Your task to perform on an android device: turn off improve location accuracy Image 0: 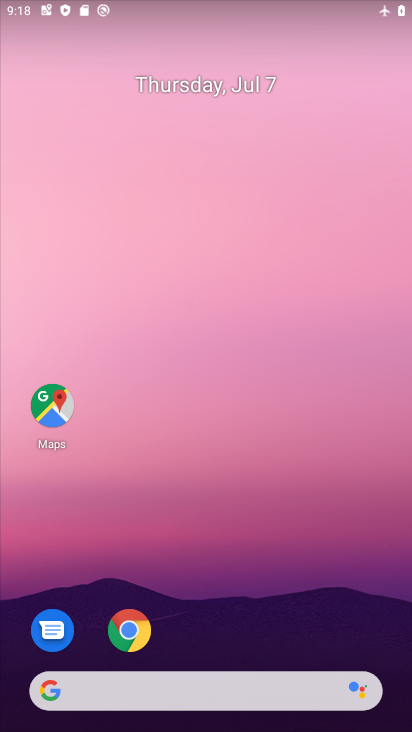
Step 0: drag from (189, 638) to (195, 152)
Your task to perform on an android device: turn off improve location accuracy Image 1: 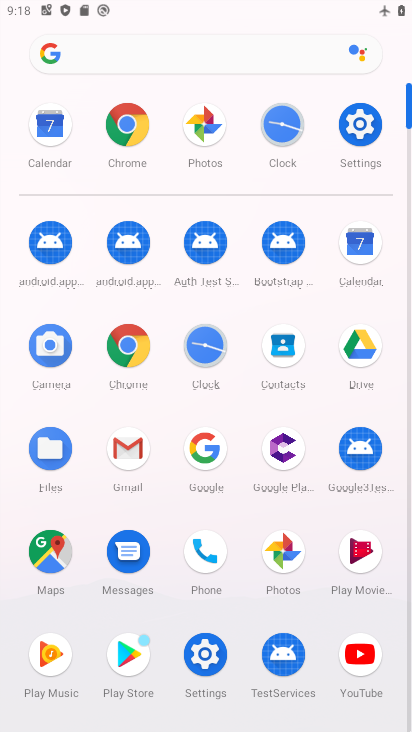
Step 1: click (356, 138)
Your task to perform on an android device: turn off improve location accuracy Image 2: 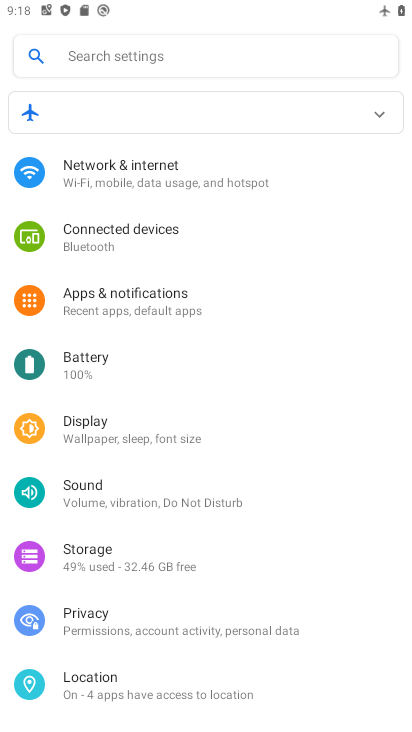
Step 2: click (99, 664)
Your task to perform on an android device: turn off improve location accuracy Image 3: 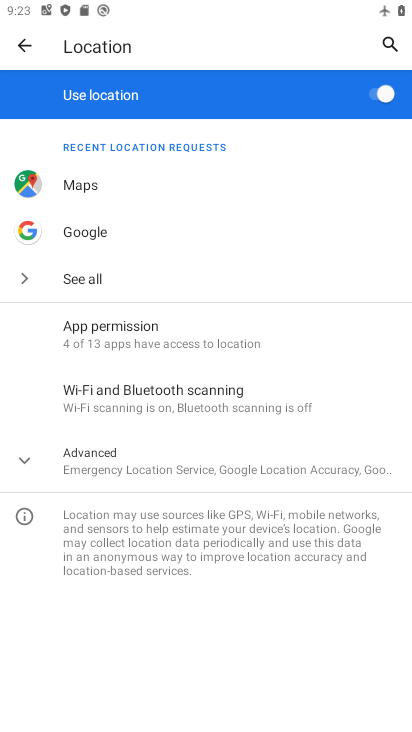
Step 3: click (160, 457)
Your task to perform on an android device: turn off improve location accuracy Image 4: 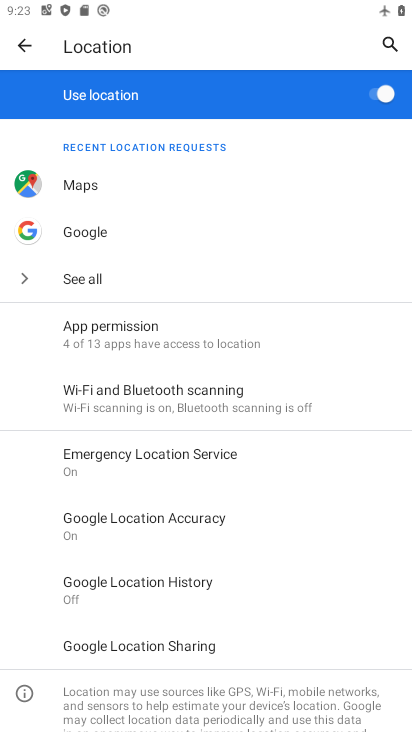
Step 4: click (250, 520)
Your task to perform on an android device: turn off improve location accuracy Image 5: 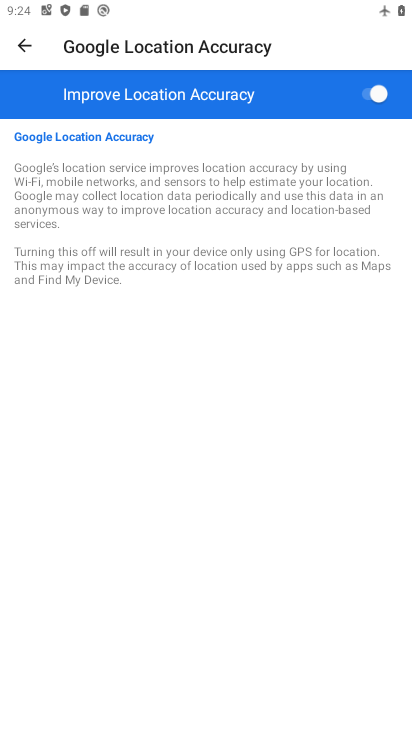
Step 5: click (366, 92)
Your task to perform on an android device: turn off improve location accuracy Image 6: 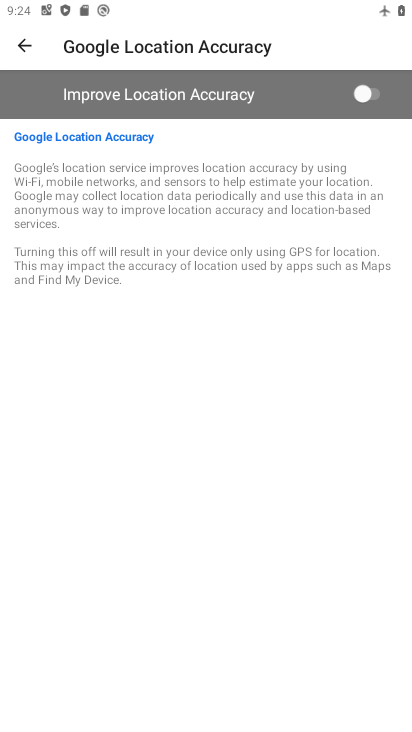
Step 6: task complete